Your task to perform on an android device: manage bookmarks in the chrome app Image 0: 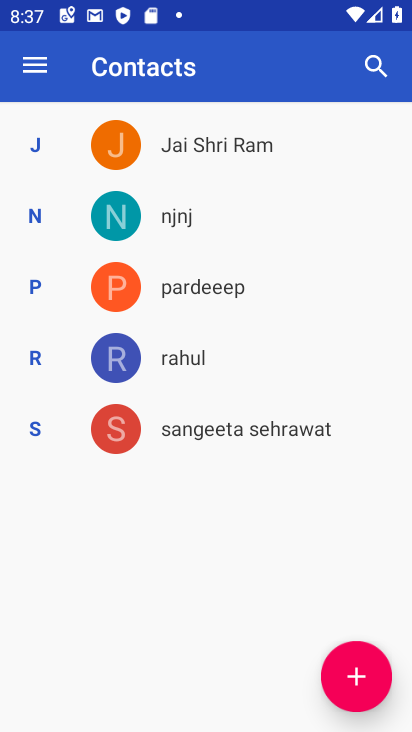
Step 0: press home button
Your task to perform on an android device: manage bookmarks in the chrome app Image 1: 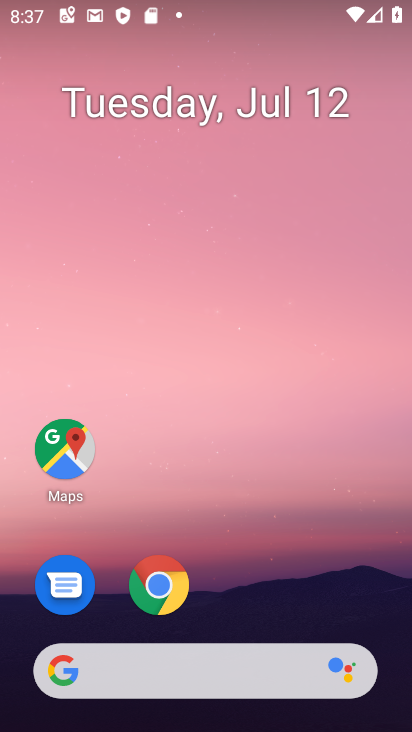
Step 1: click (167, 594)
Your task to perform on an android device: manage bookmarks in the chrome app Image 2: 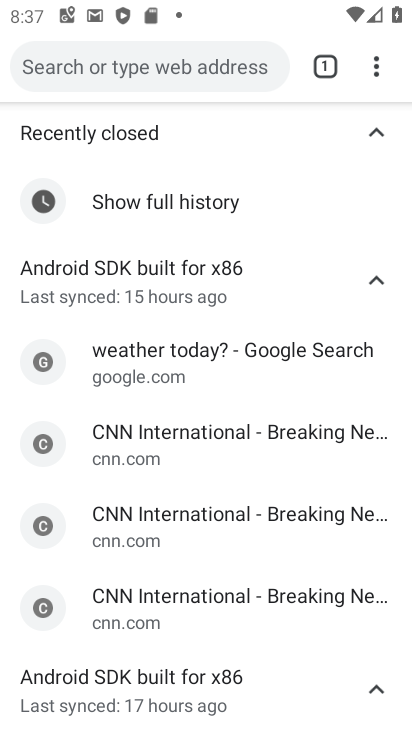
Step 2: click (374, 71)
Your task to perform on an android device: manage bookmarks in the chrome app Image 3: 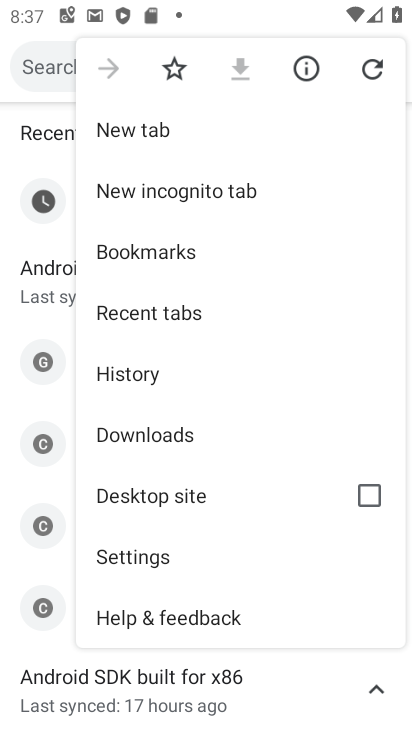
Step 3: click (183, 254)
Your task to perform on an android device: manage bookmarks in the chrome app Image 4: 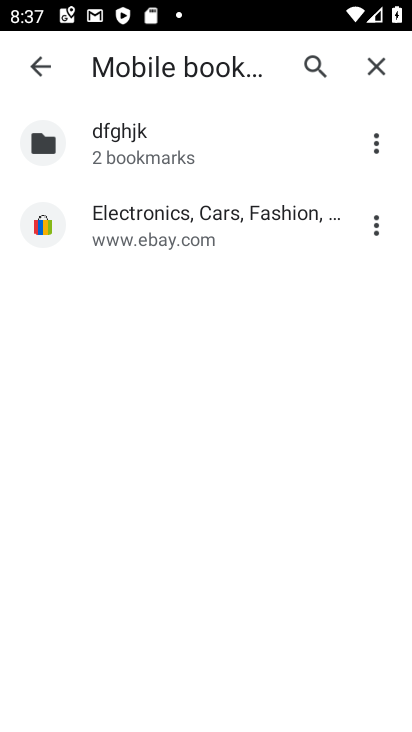
Step 4: click (372, 221)
Your task to perform on an android device: manage bookmarks in the chrome app Image 5: 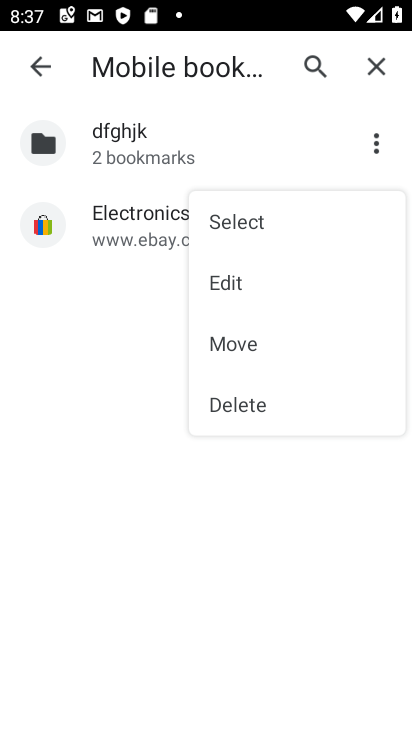
Step 5: click (246, 271)
Your task to perform on an android device: manage bookmarks in the chrome app Image 6: 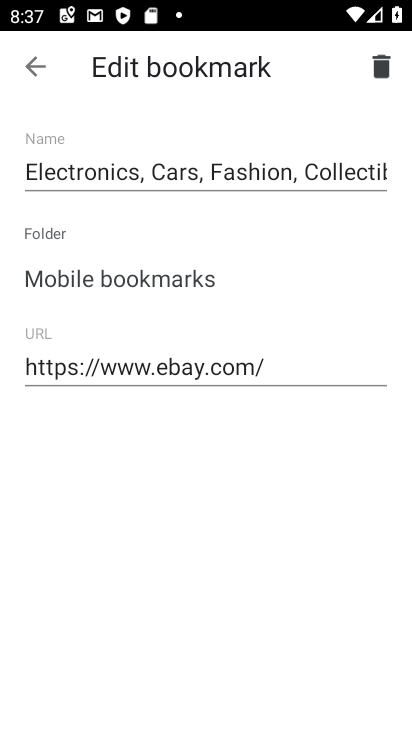
Step 6: click (34, 67)
Your task to perform on an android device: manage bookmarks in the chrome app Image 7: 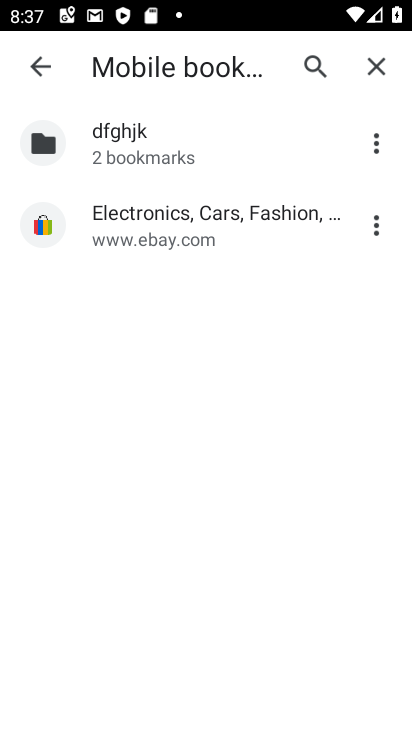
Step 7: task complete